Your task to perform on an android device: Open Google Chrome and open the bookmarks view Image 0: 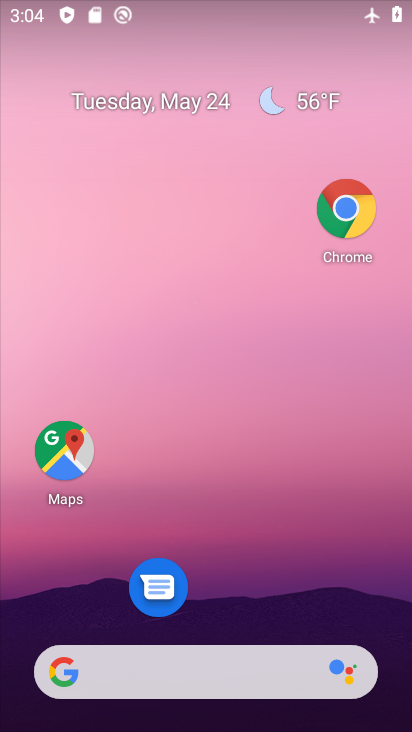
Step 0: click (354, 202)
Your task to perform on an android device: Open Google Chrome and open the bookmarks view Image 1: 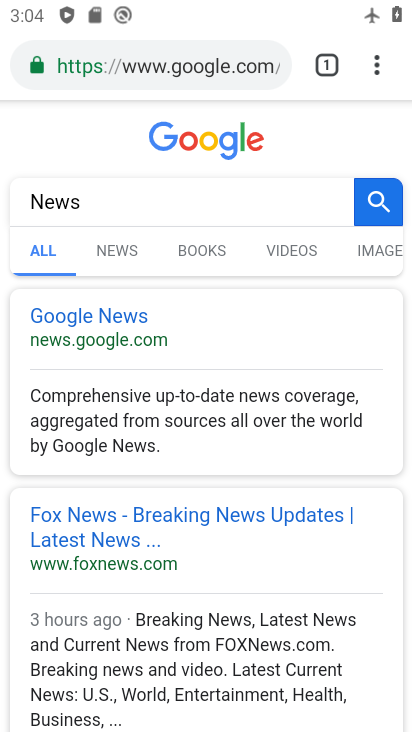
Step 1: click (375, 68)
Your task to perform on an android device: Open Google Chrome and open the bookmarks view Image 2: 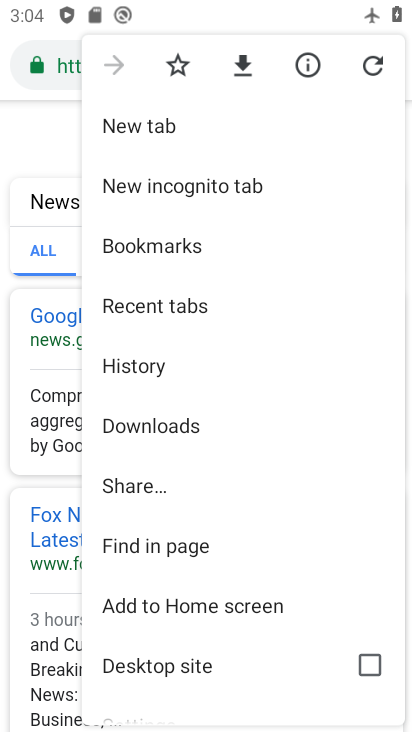
Step 2: click (173, 245)
Your task to perform on an android device: Open Google Chrome and open the bookmarks view Image 3: 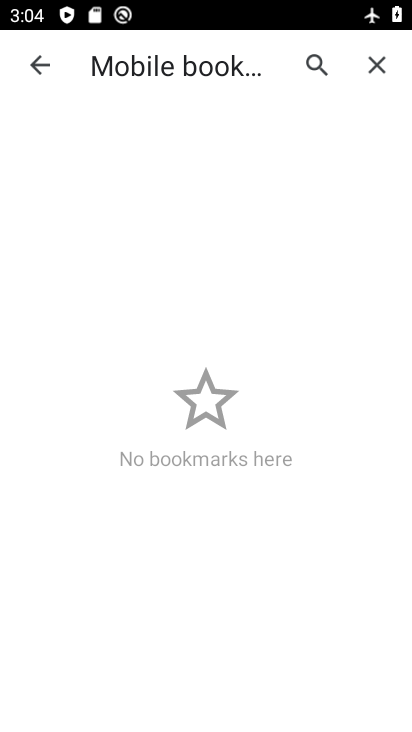
Step 3: task complete